Your task to perform on an android device: clear history in the chrome app Image 0: 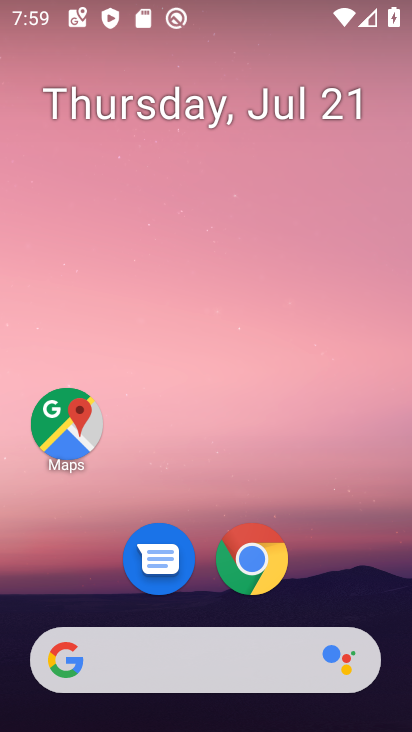
Step 0: drag from (234, 583) to (325, 213)
Your task to perform on an android device: clear history in the chrome app Image 1: 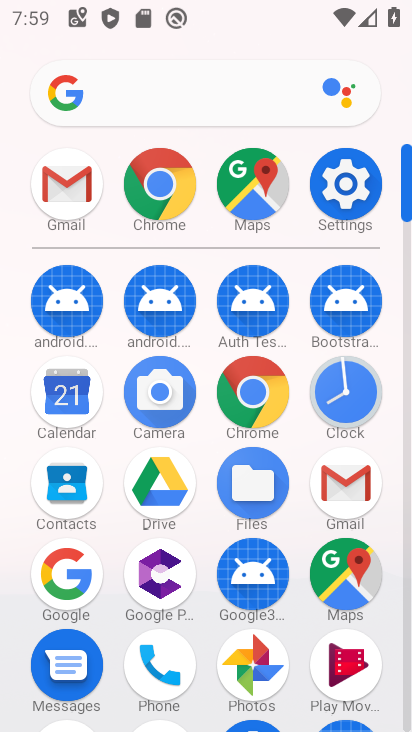
Step 1: click (261, 415)
Your task to perform on an android device: clear history in the chrome app Image 2: 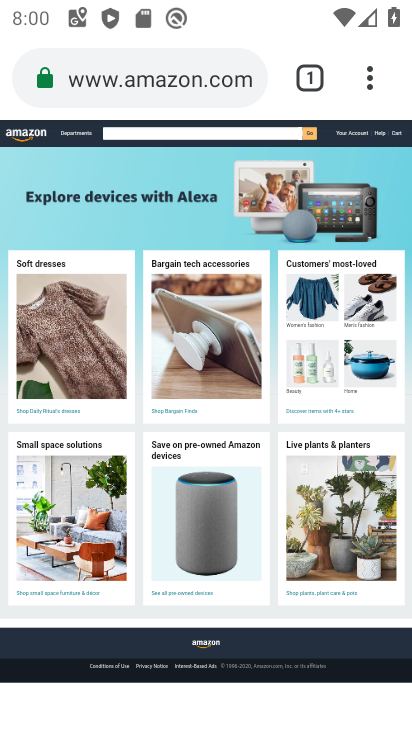
Step 2: click (372, 86)
Your task to perform on an android device: clear history in the chrome app Image 3: 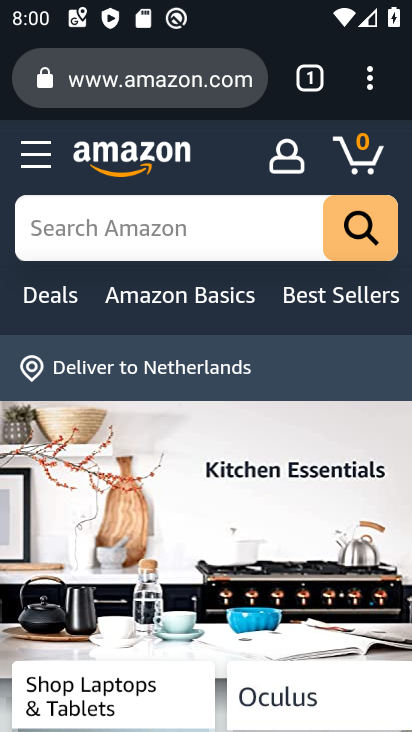
Step 3: click (368, 94)
Your task to perform on an android device: clear history in the chrome app Image 4: 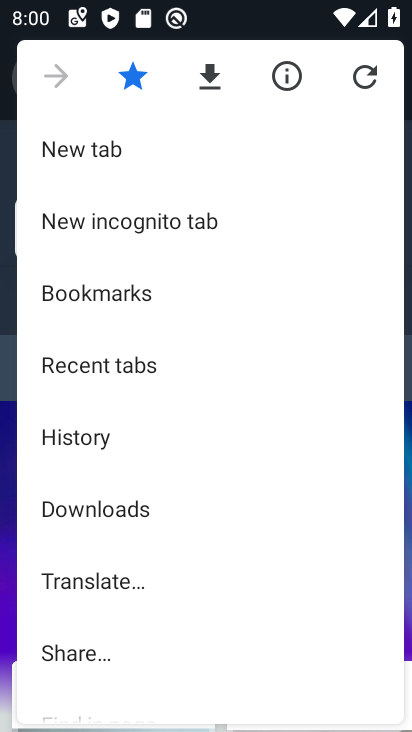
Step 4: click (105, 447)
Your task to perform on an android device: clear history in the chrome app Image 5: 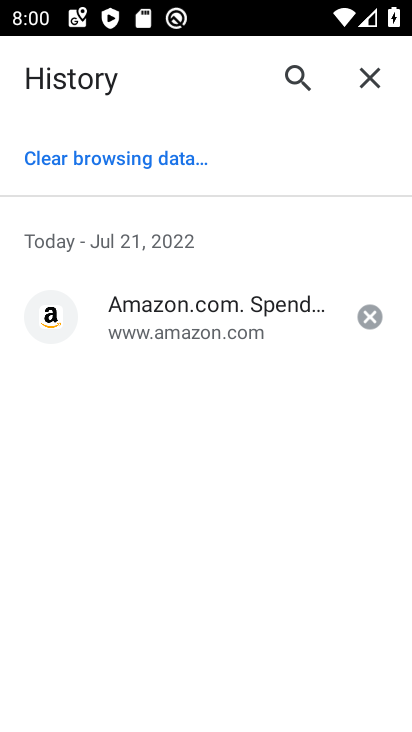
Step 5: click (110, 154)
Your task to perform on an android device: clear history in the chrome app Image 6: 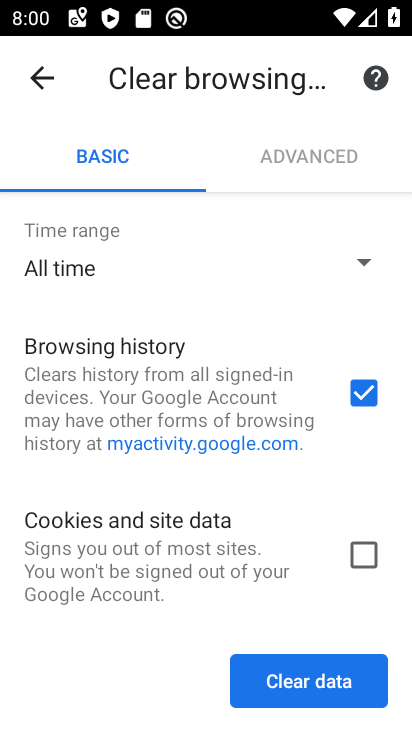
Step 6: click (279, 678)
Your task to perform on an android device: clear history in the chrome app Image 7: 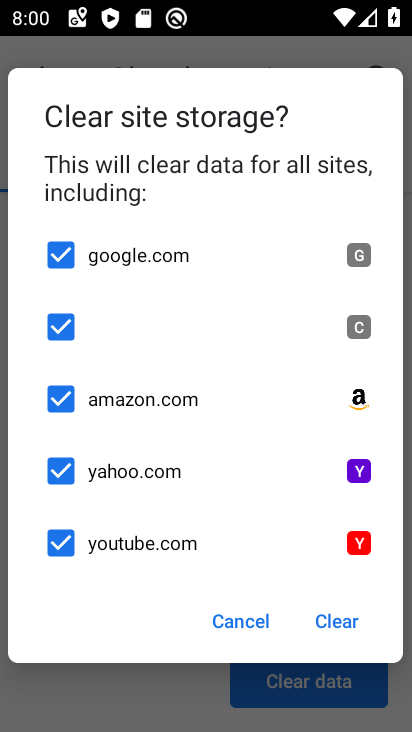
Step 7: click (341, 625)
Your task to perform on an android device: clear history in the chrome app Image 8: 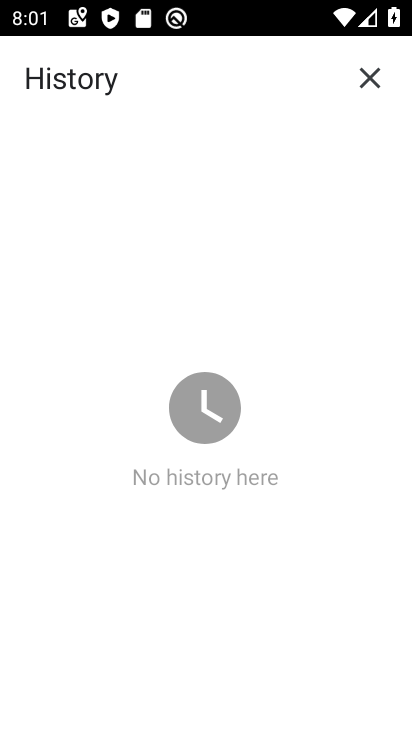
Step 8: task complete